Your task to perform on an android device: turn on priority inbox in the gmail app Image 0: 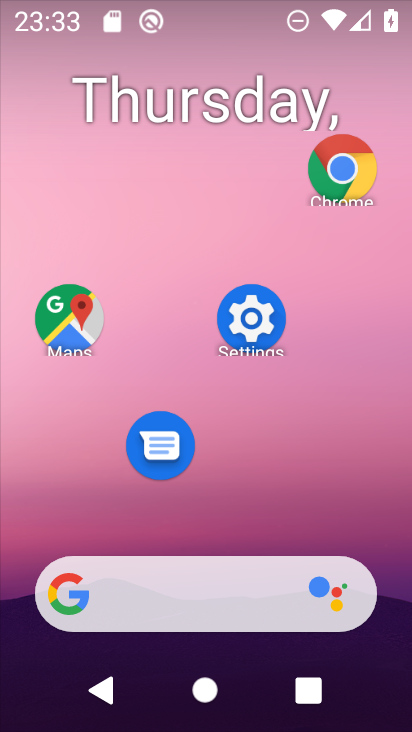
Step 0: drag from (215, 580) to (264, 223)
Your task to perform on an android device: turn on priority inbox in the gmail app Image 1: 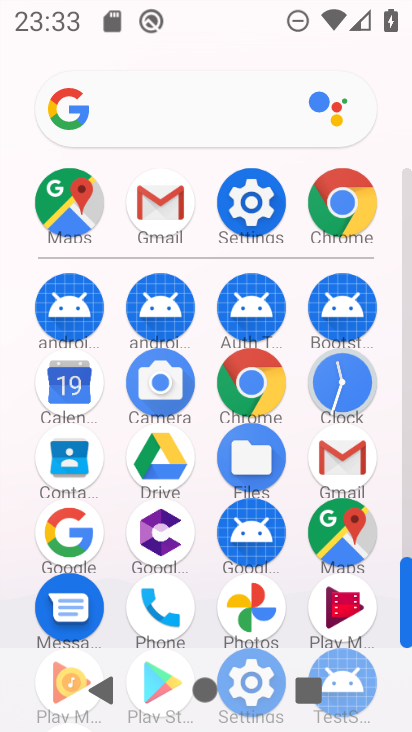
Step 1: click (340, 457)
Your task to perform on an android device: turn on priority inbox in the gmail app Image 2: 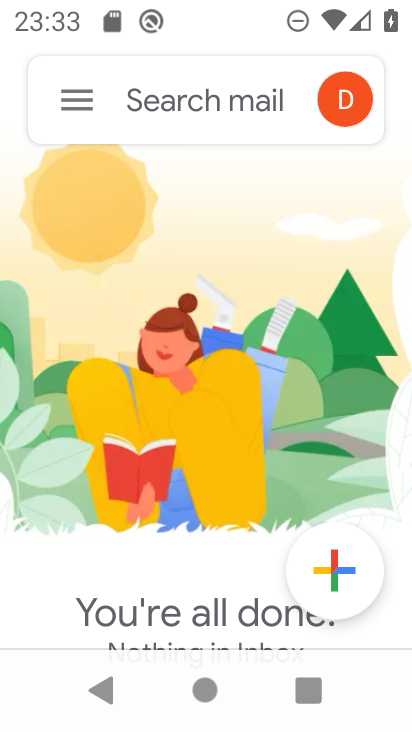
Step 2: drag from (198, 586) to (188, 285)
Your task to perform on an android device: turn on priority inbox in the gmail app Image 3: 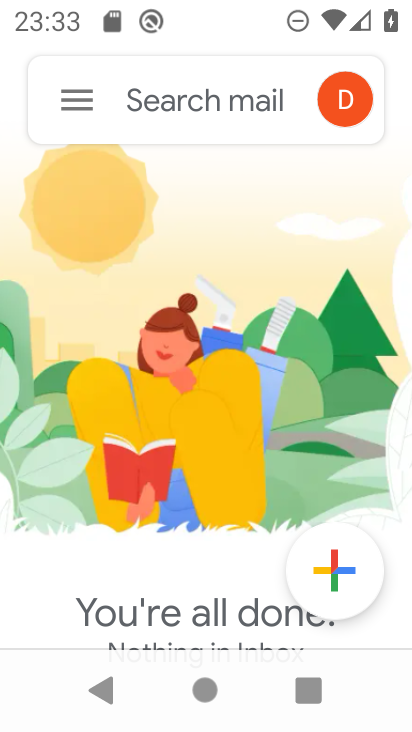
Step 3: click (71, 86)
Your task to perform on an android device: turn on priority inbox in the gmail app Image 4: 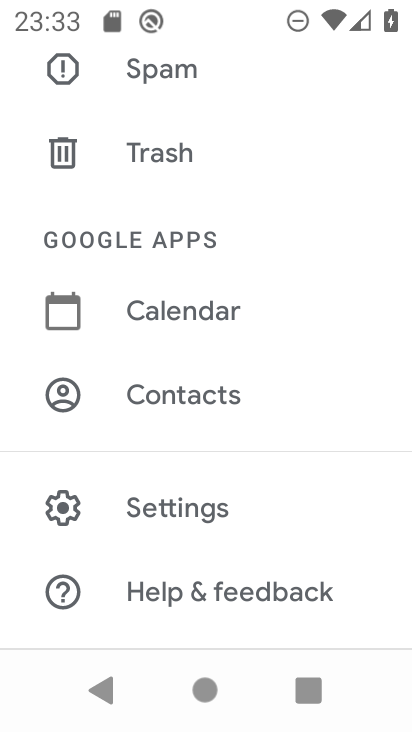
Step 4: drag from (193, 550) to (198, 180)
Your task to perform on an android device: turn on priority inbox in the gmail app Image 5: 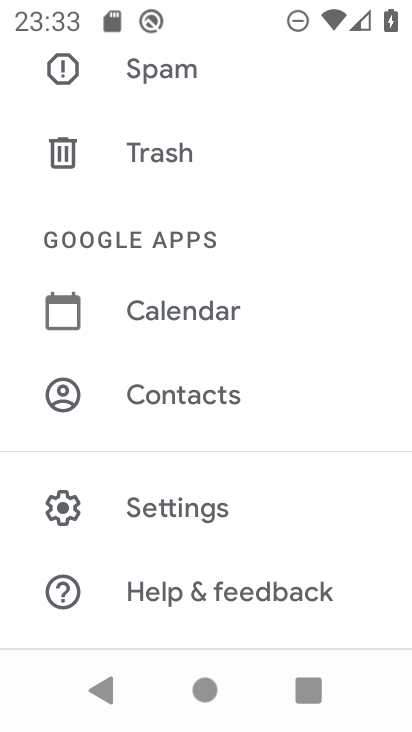
Step 5: click (219, 505)
Your task to perform on an android device: turn on priority inbox in the gmail app Image 6: 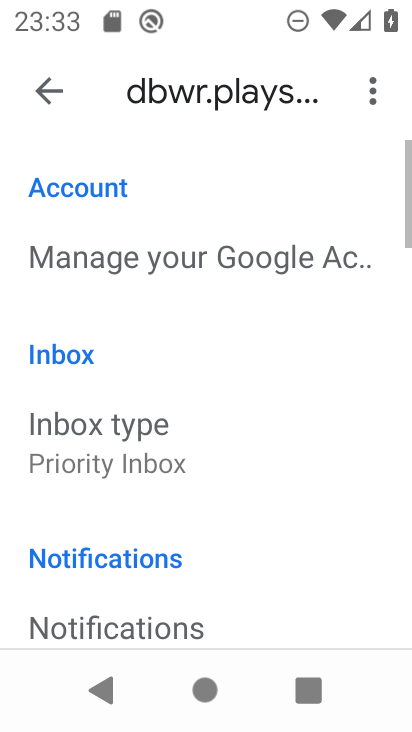
Step 6: drag from (240, 514) to (275, 258)
Your task to perform on an android device: turn on priority inbox in the gmail app Image 7: 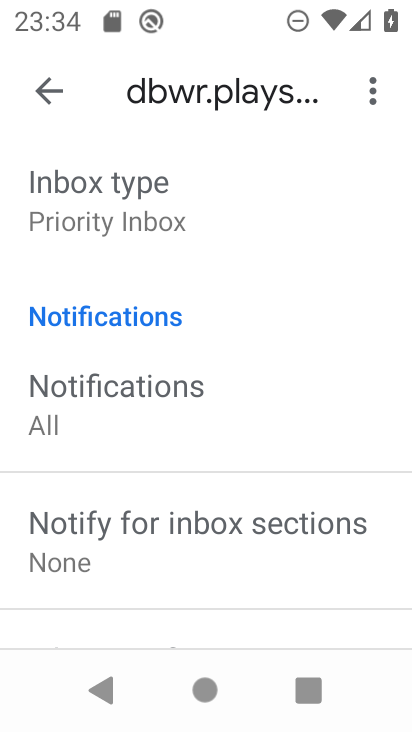
Step 7: click (129, 202)
Your task to perform on an android device: turn on priority inbox in the gmail app Image 8: 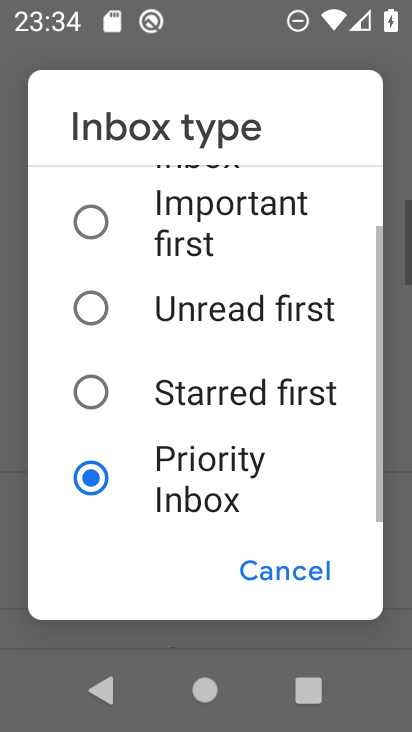
Step 8: click (168, 452)
Your task to perform on an android device: turn on priority inbox in the gmail app Image 9: 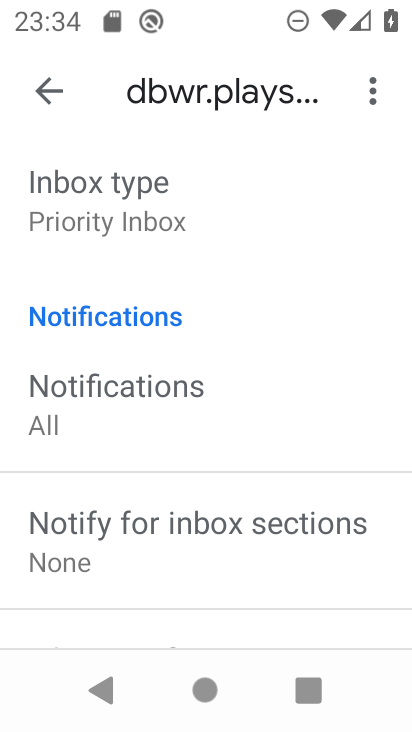
Step 9: task complete